Your task to perform on an android device: Turn off the flashlight Image 0: 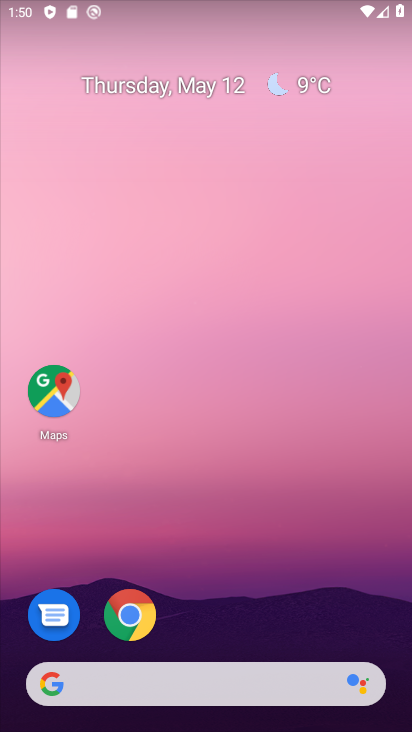
Step 0: drag from (175, 691) to (109, 171)
Your task to perform on an android device: Turn off the flashlight Image 1: 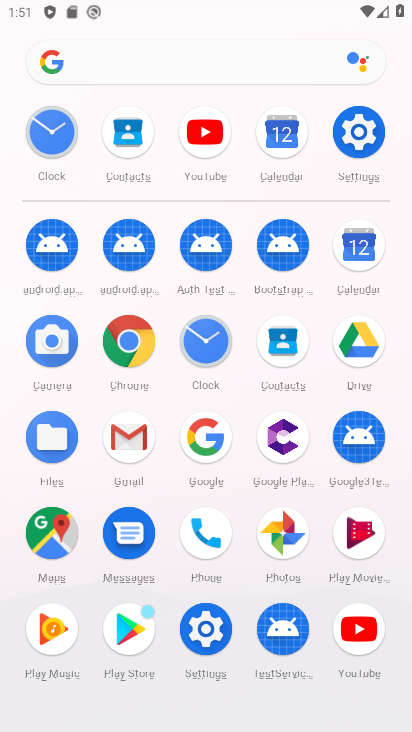
Step 1: task complete